Your task to perform on an android device: open app "Gmail" (install if not already installed) and go to login screen Image 0: 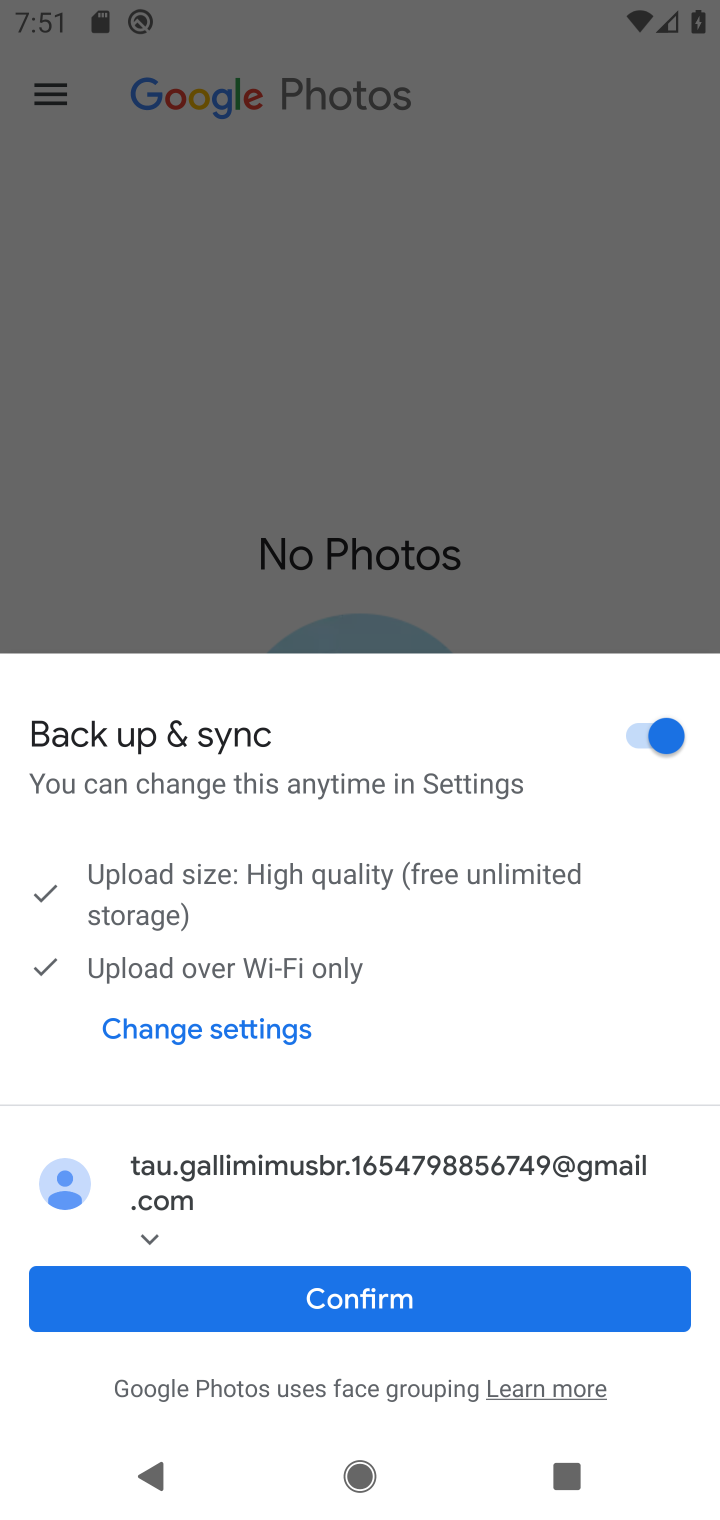
Step 0: press home button
Your task to perform on an android device: open app "Gmail" (install if not already installed) and go to login screen Image 1: 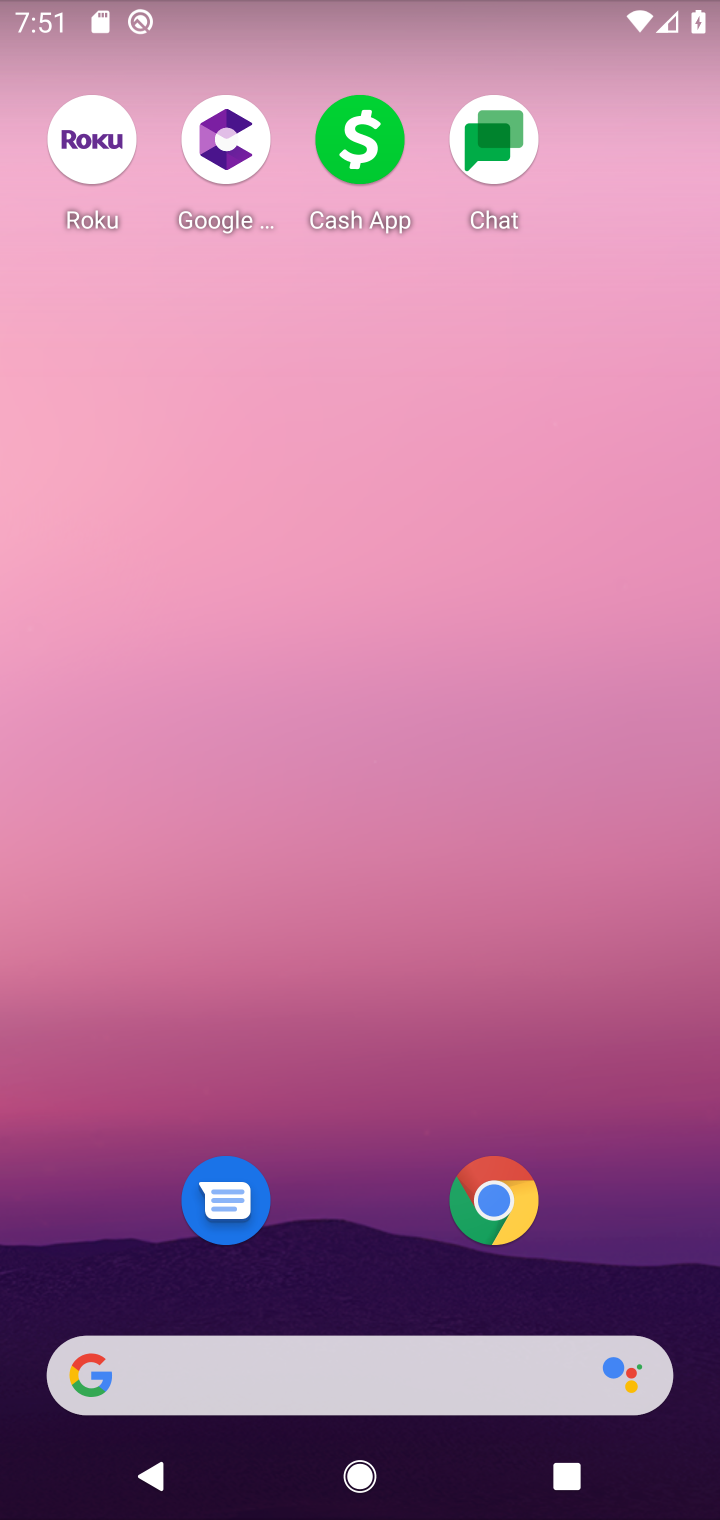
Step 1: drag from (331, 1170) to (373, 322)
Your task to perform on an android device: open app "Gmail" (install if not already installed) and go to login screen Image 2: 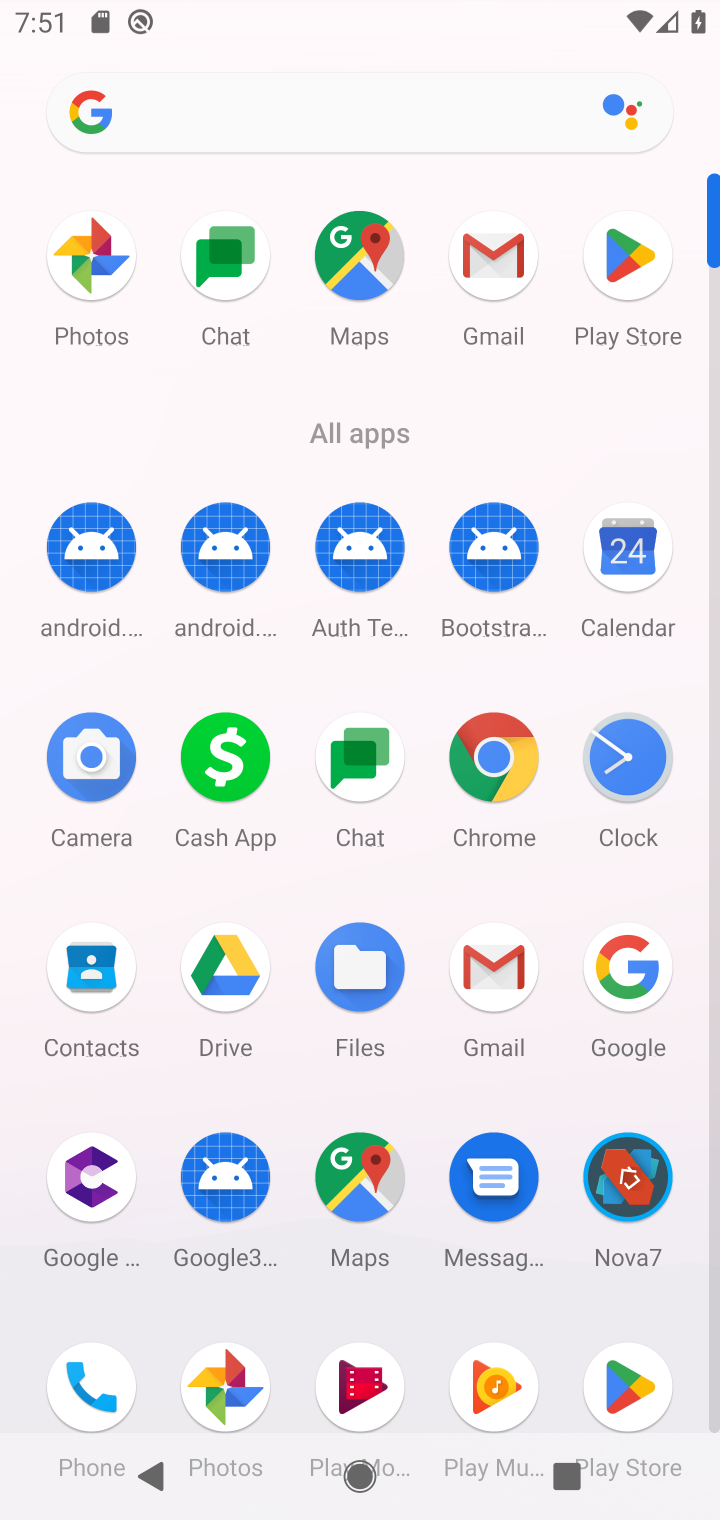
Step 2: click (657, 253)
Your task to perform on an android device: open app "Gmail" (install if not already installed) and go to login screen Image 3: 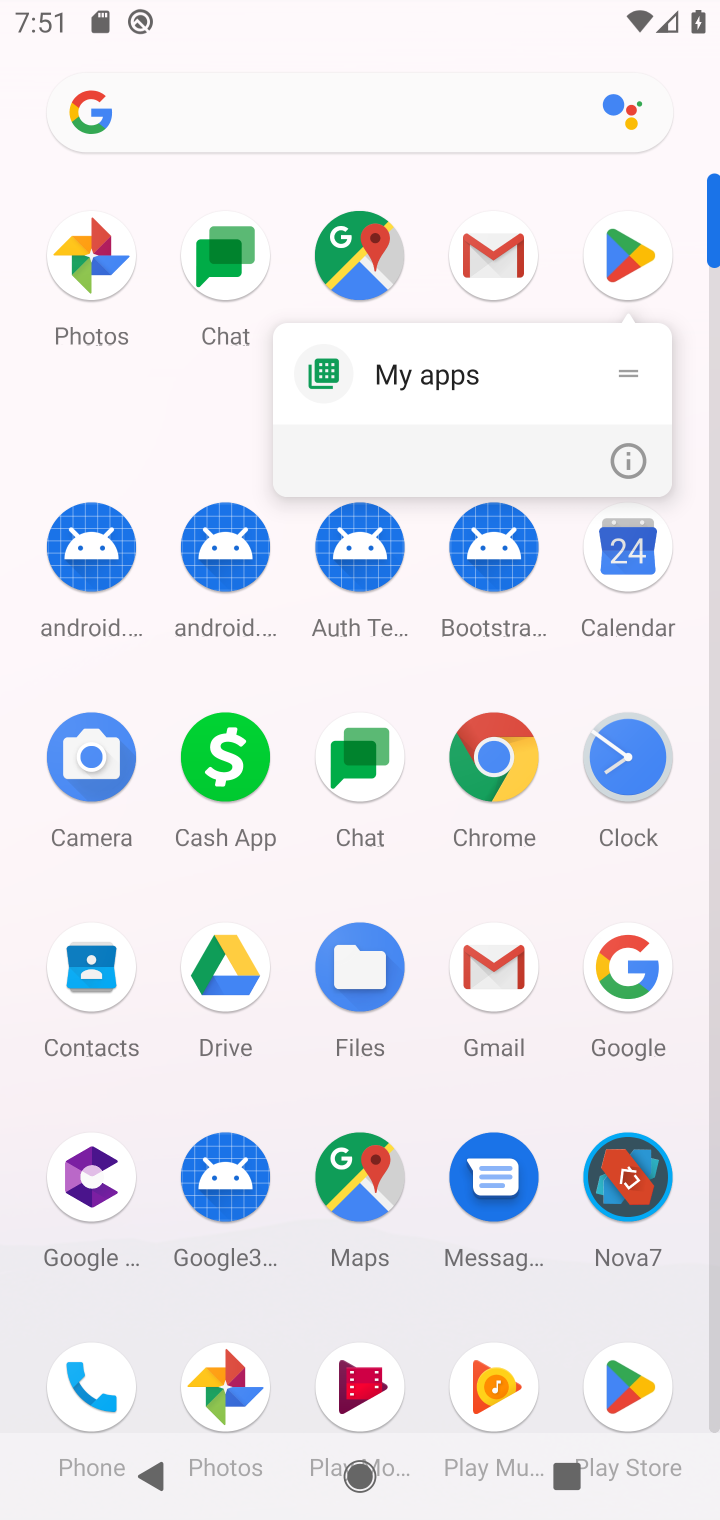
Step 3: click (628, 270)
Your task to perform on an android device: open app "Gmail" (install if not already installed) and go to login screen Image 4: 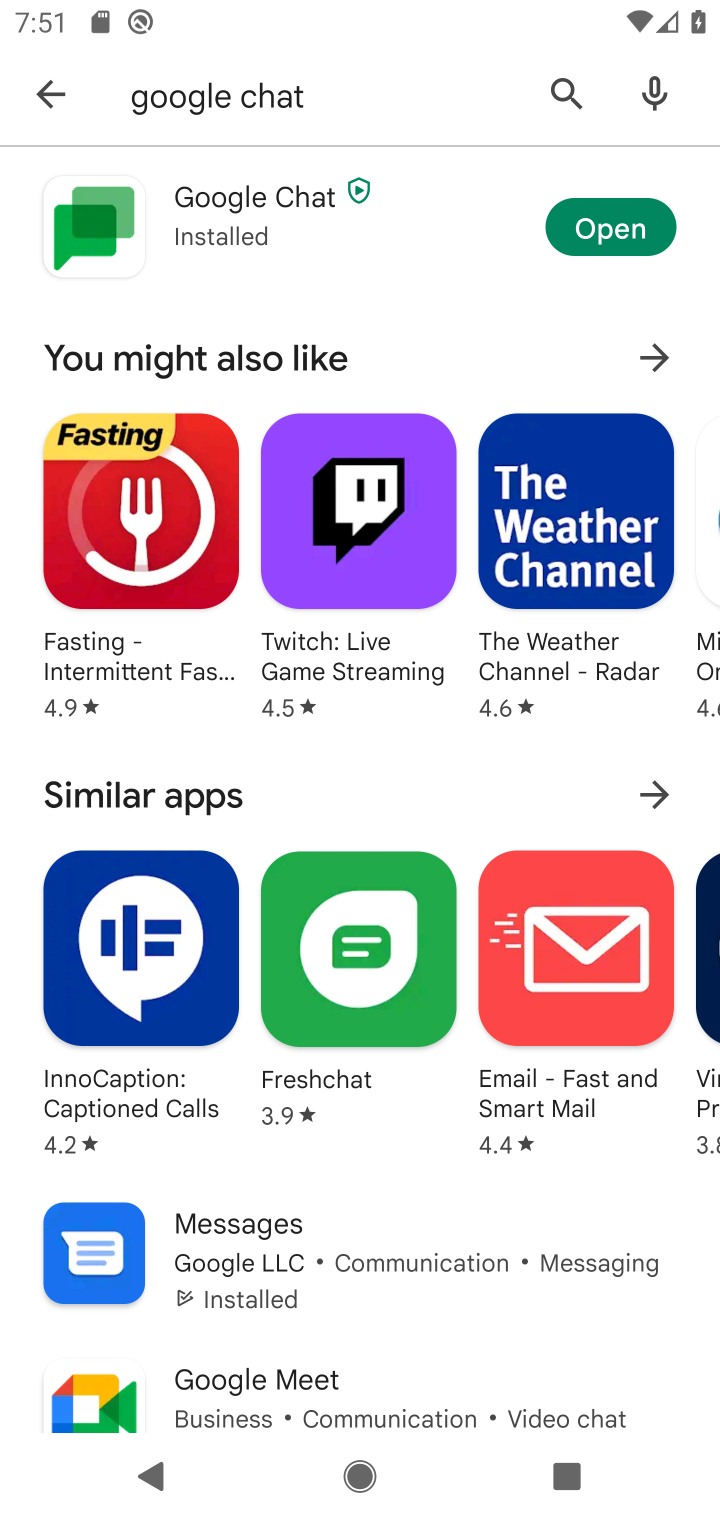
Step 4: click (304, 96)
Your task to perform on an android device: open app "Gmail" (install if not already installed) and go to login screen Image 5: 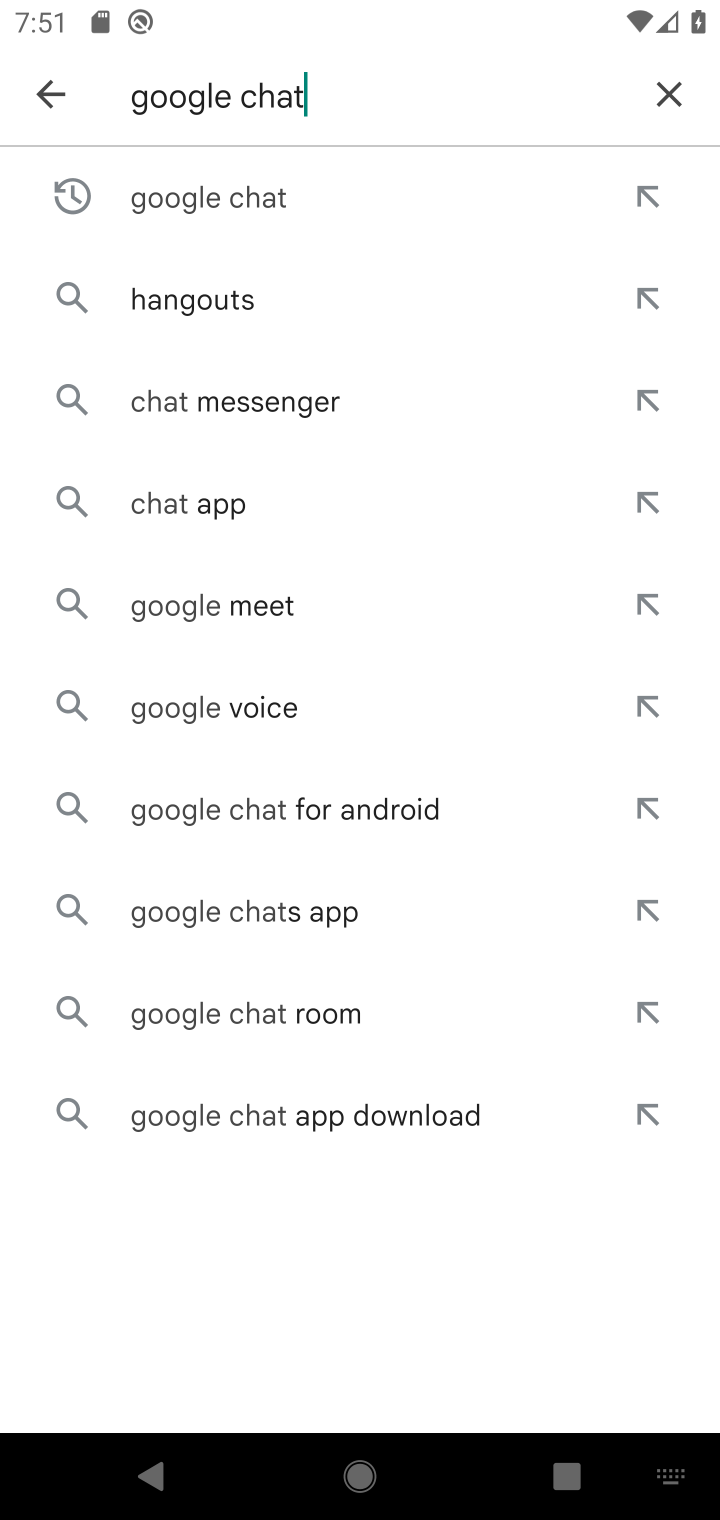
Step 5: click (665, 80)
Your task to perform on an android device: open app "Gmail" (install if not already installed) and go to login screen Image 6: 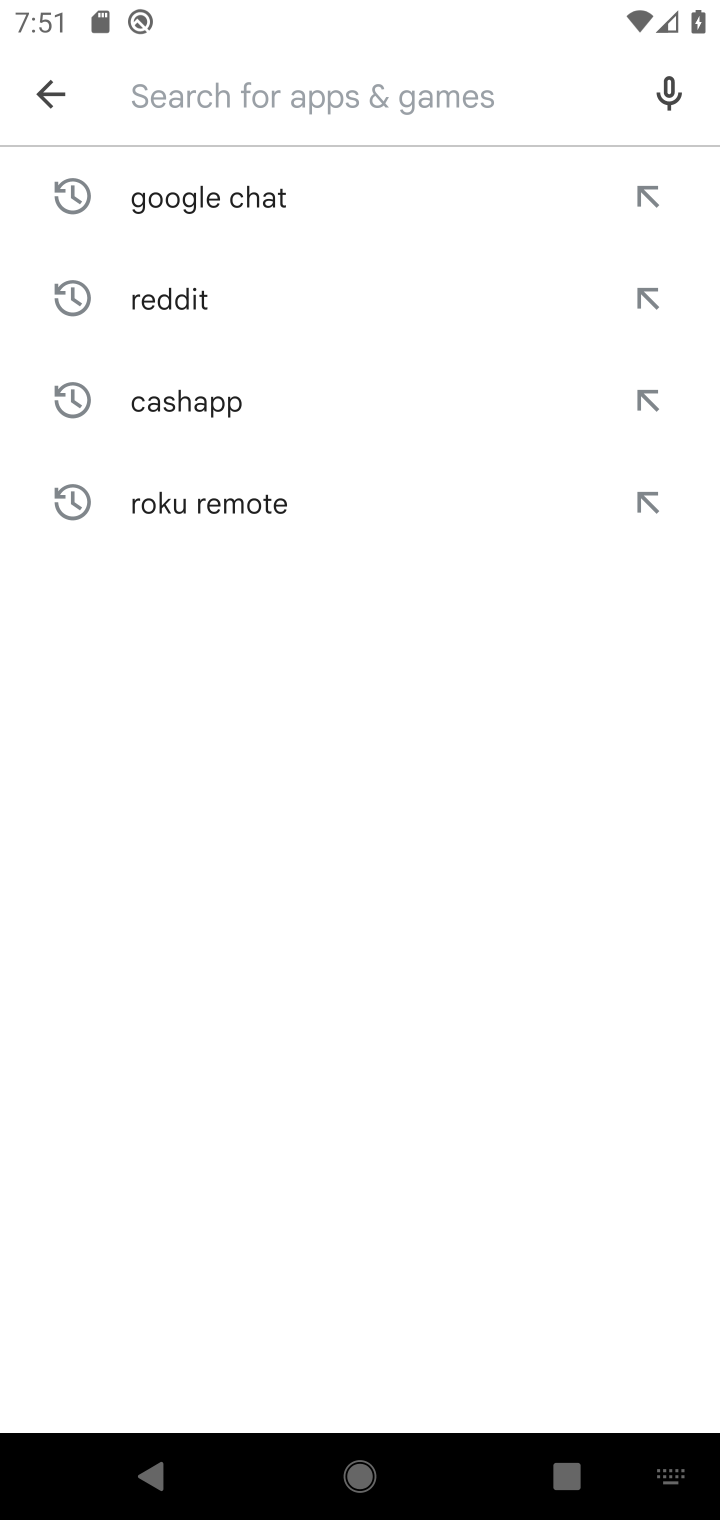
Step 6: type "gmail"
Your task to perform on an android device: open app "Gmail" (install if not already installed) and go to login screen Image 7: 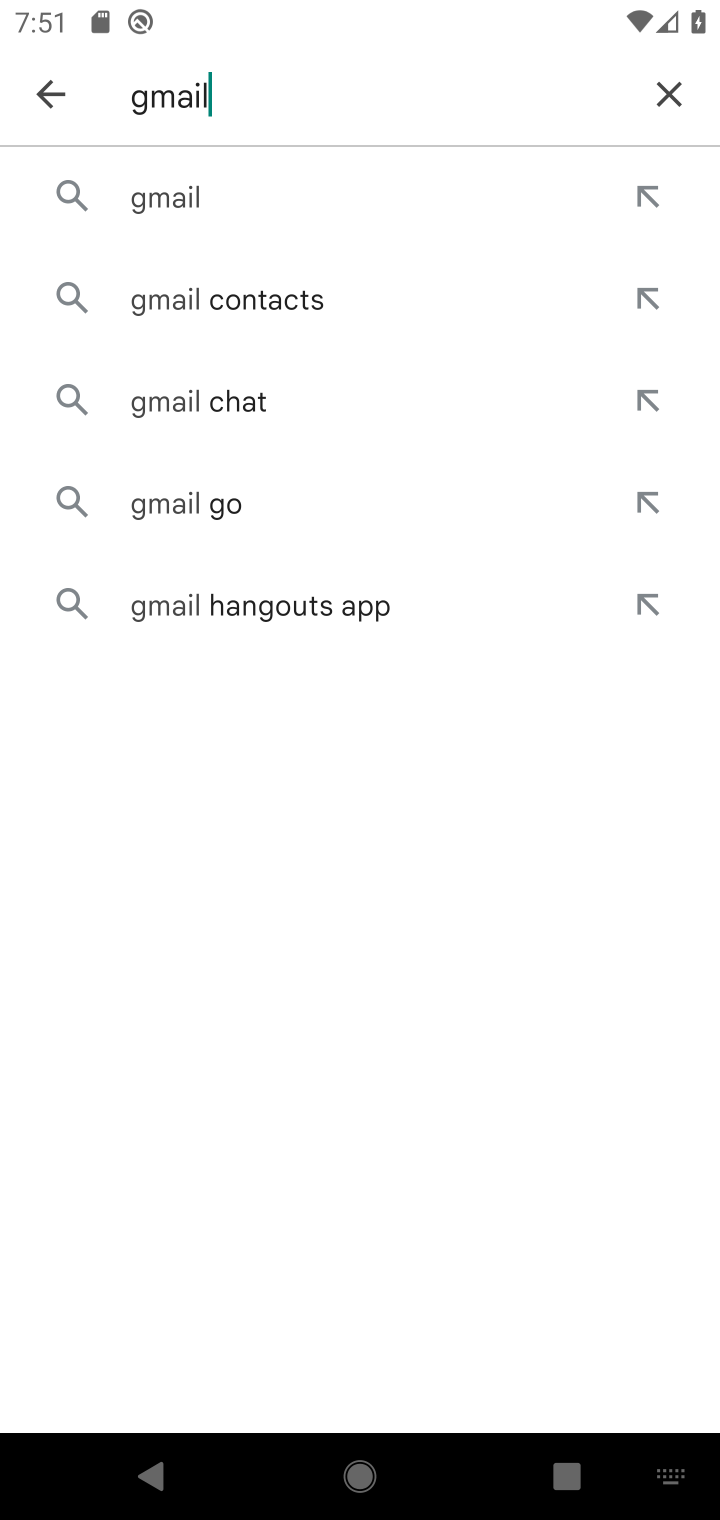
Step 7: click (217, 208)
Your task to perform on an android device: open app "Gmail" (install if not already installed) and go to login screen Image 8: 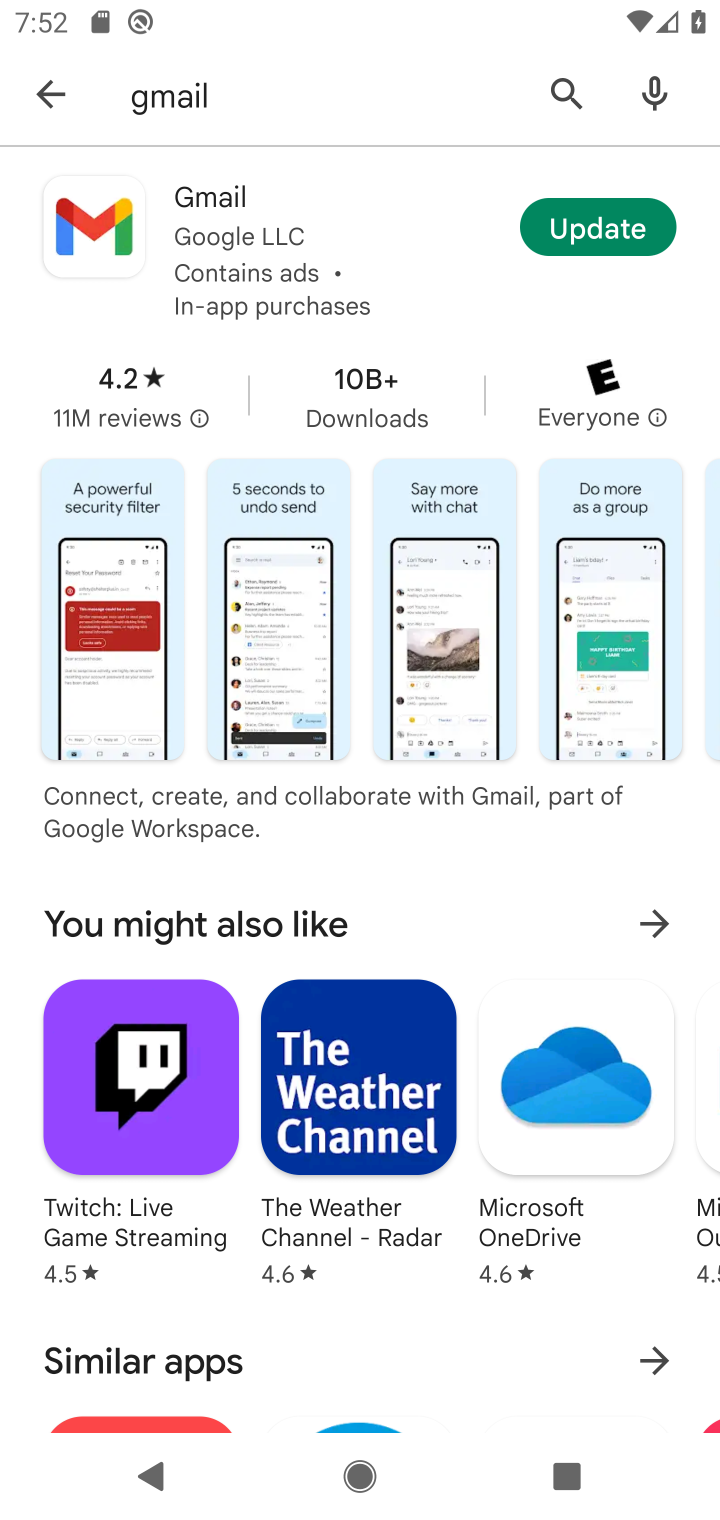
Step 8: click (630, 223)
Your task to perform on an android device: open app "Gmail" (install if not already installed) and go to login screen Image 9: 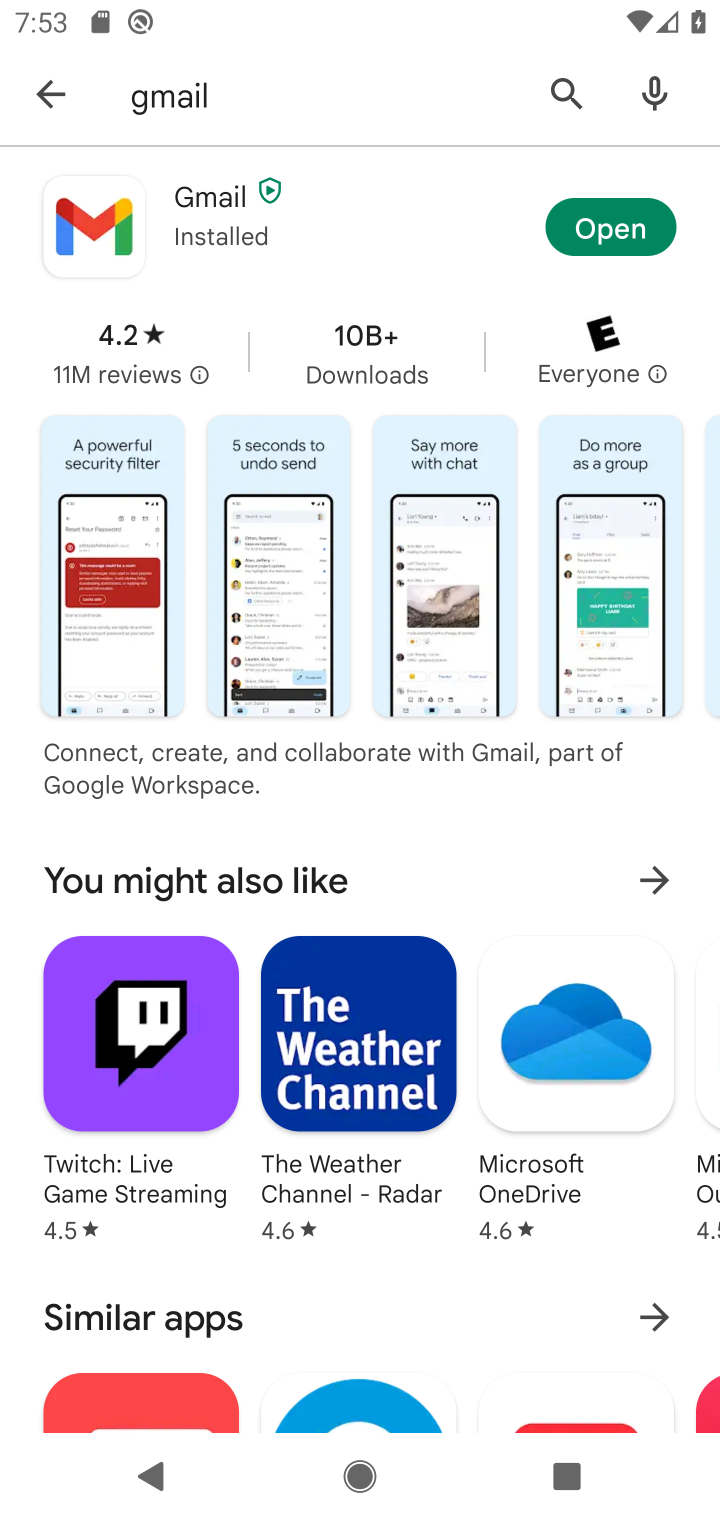
Step 9: click (624, 227)
Your task to perform on an android device: open app "Gmail" (install if not already installed) and go to login screen Image 10: 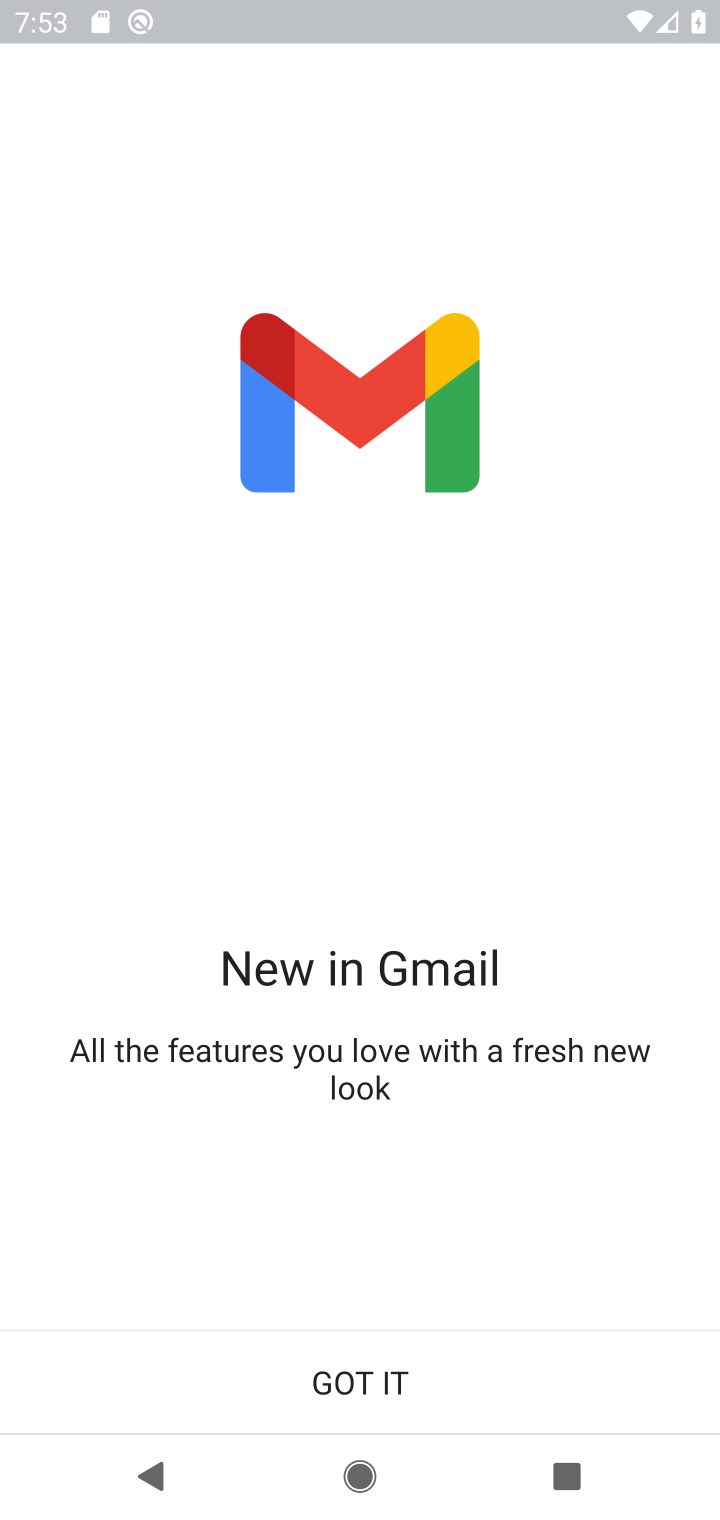
Step 10: click (421, 1369)
Your task to perform on an android device: open app "Gmail" (install if not already installed) and go to login screen Image 11: 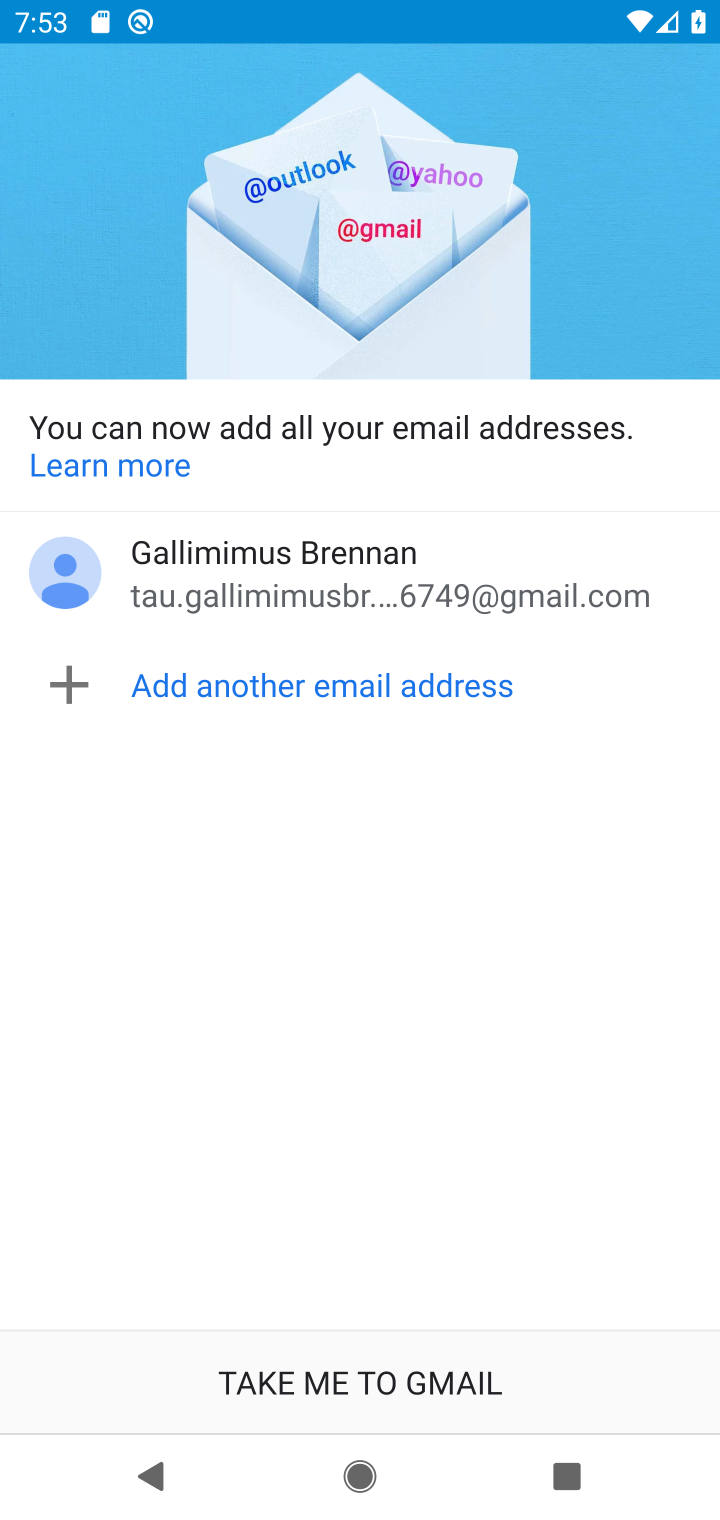
Step 11: task complete